Your task to perform on an android device: Find coffee shops on Maps Image 0: 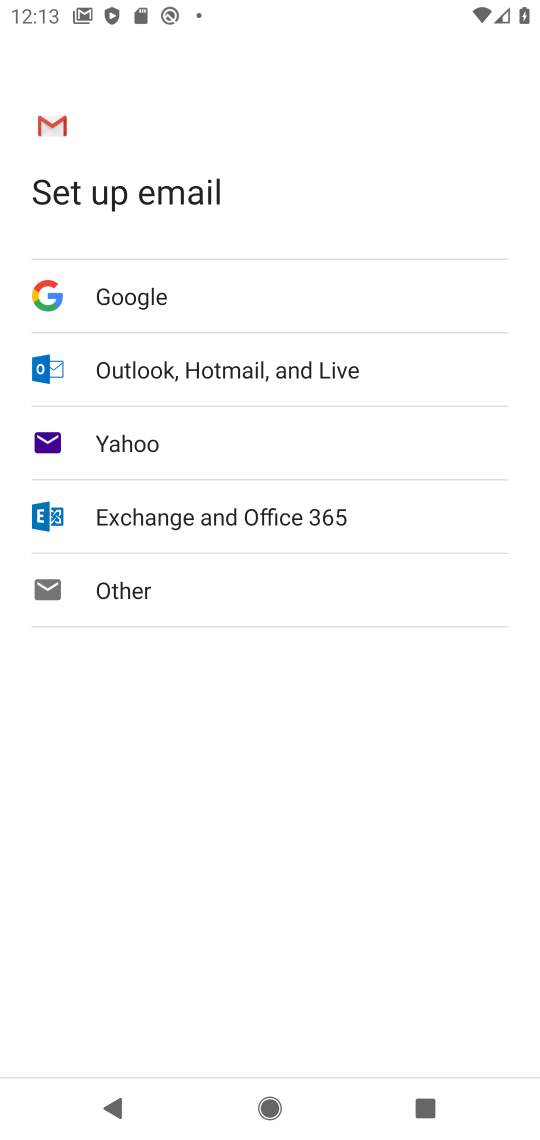
Step 0: press home button
Your task to perform on an android device: Find coffee shops on Maps Image 1: 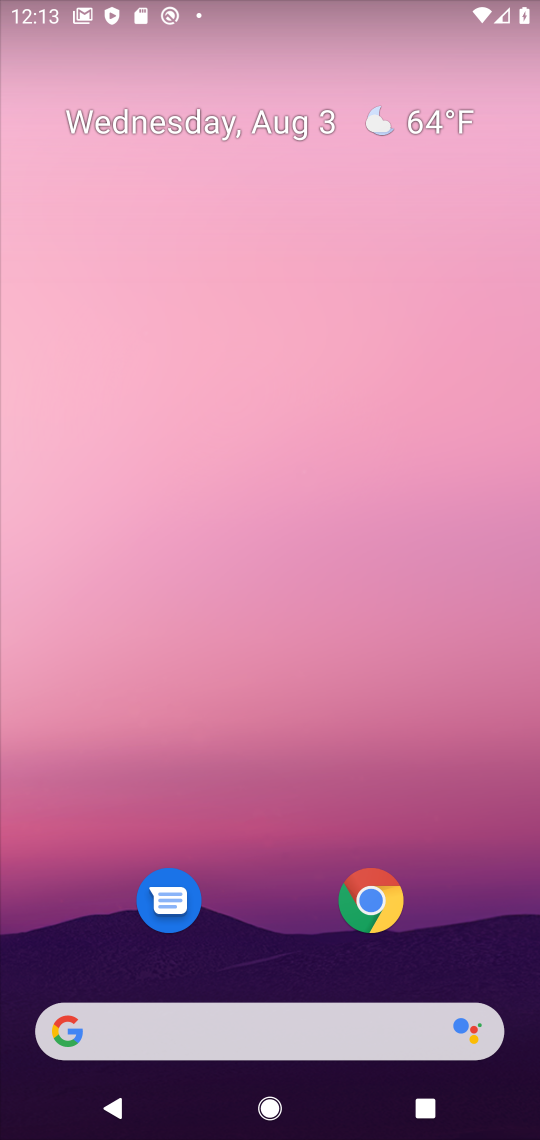
Step 1: drag from (276, 911) to (304, 118)
Your task to perform on an android device: Find coffee shops on Maps Image 2: 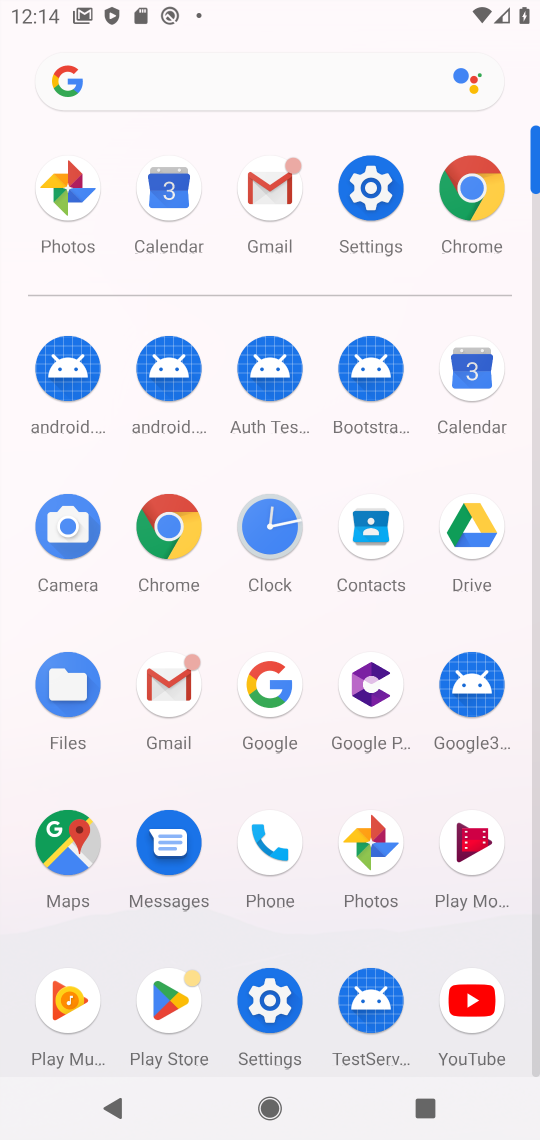
Step 2: click (79, 828)
Your task to perform on an android device: Find coffee shops on Maps Image 3: 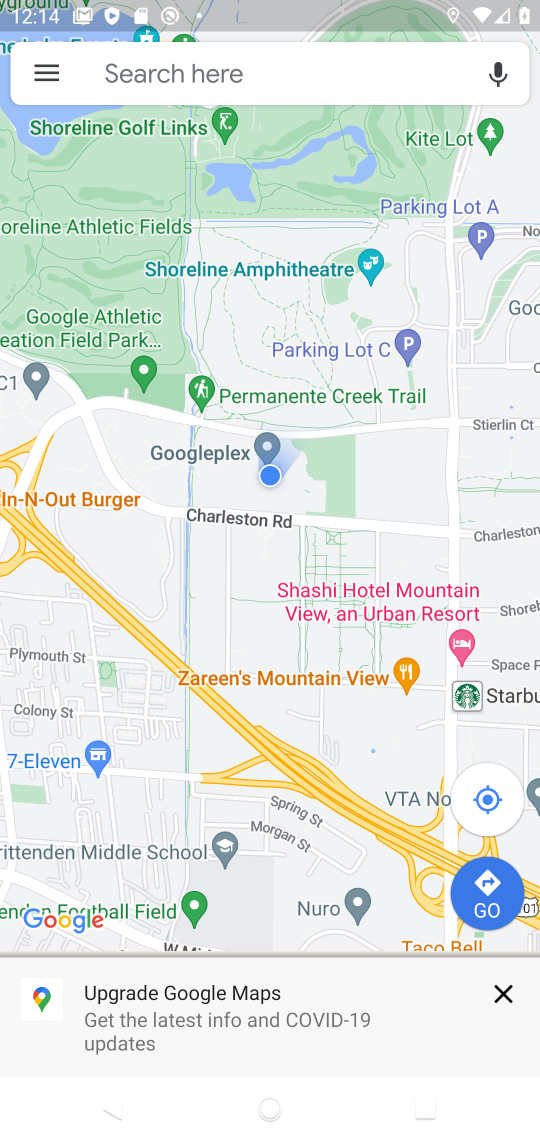
Step 3: click (254, 61)
Your task to perform on an android device: Find coffee shops on Maps Image 4: 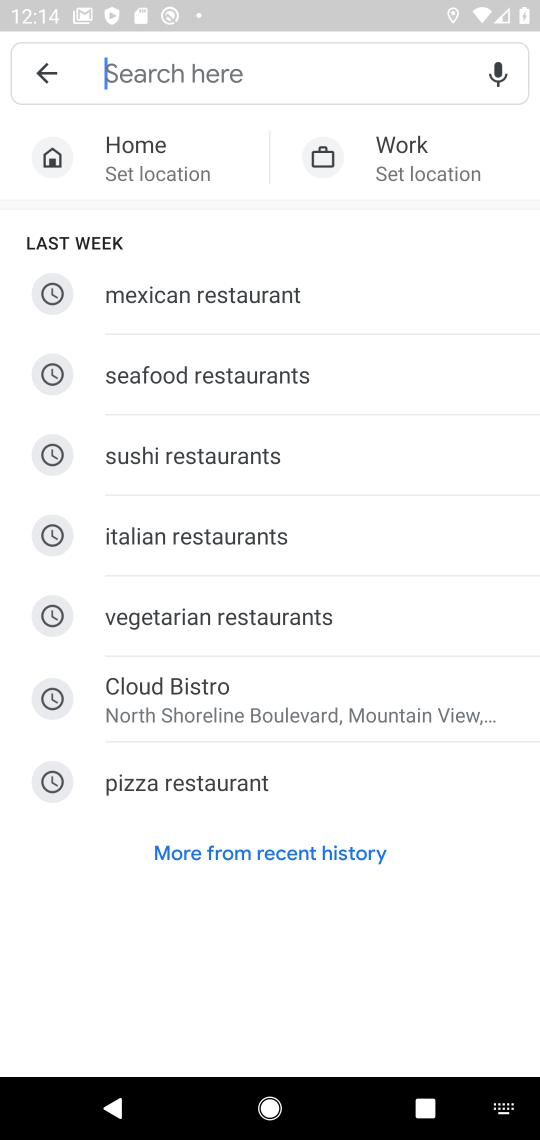
Step 4: type "Coffee Shops"
Your task to perform on an android device: Find coffee shops on Maps Image 5: 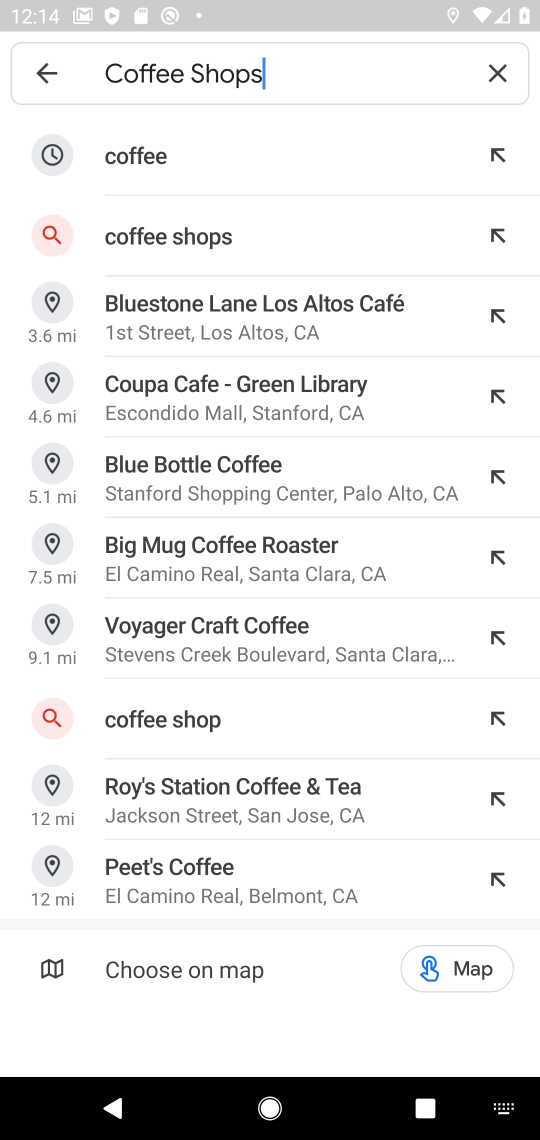
Step 5: click (168, 225)
Your task to perform on an android device: Find coffee shops on Maps Image 6: 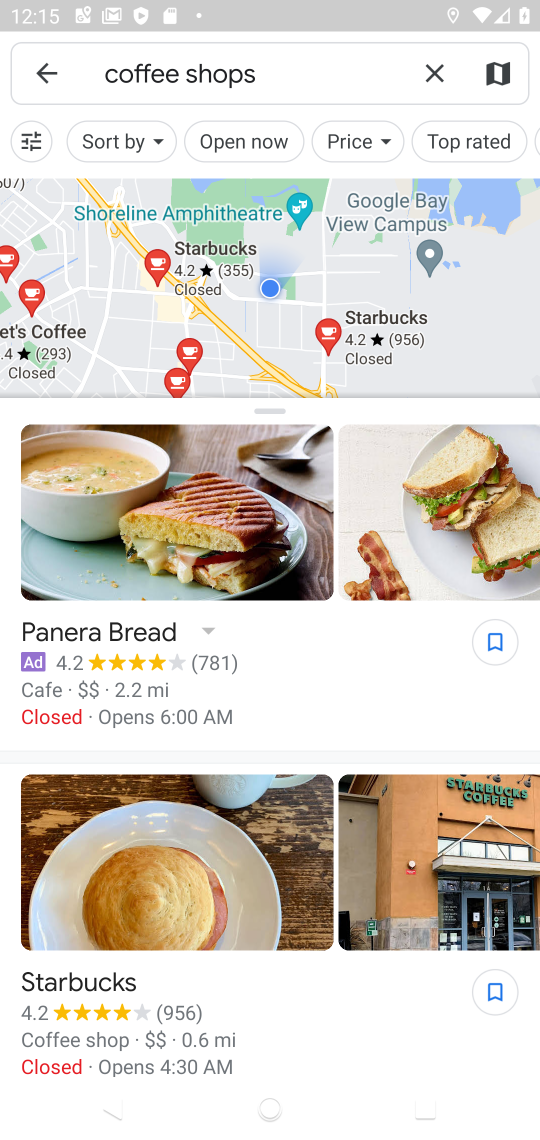
Step 6: task complete